Your task to perform on an android device: Set an alarm for 12pm Image 0: 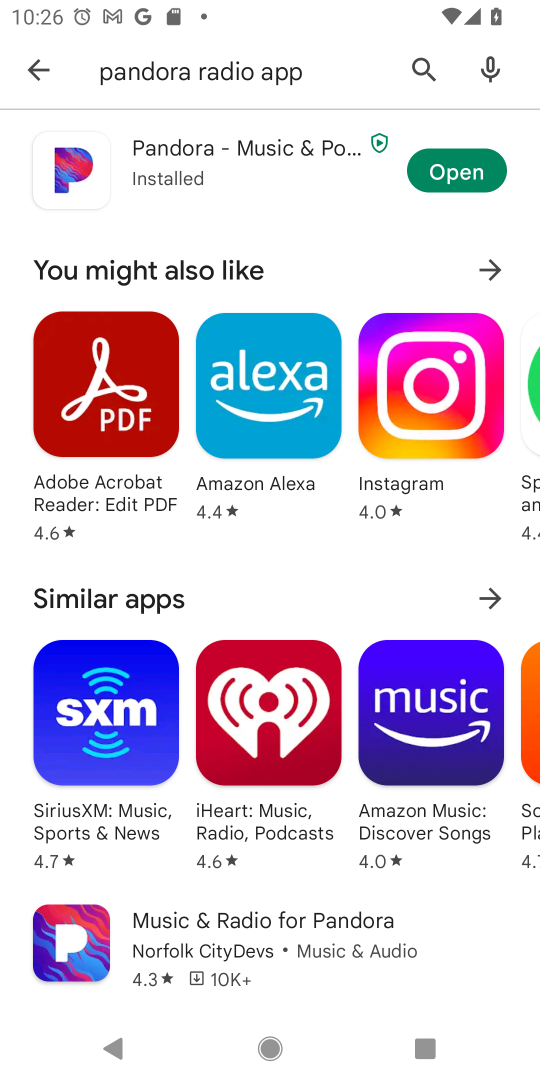
Step 0: click (188, 61)
Your task to perform on an android device: Set an alarm for 12pm Image 1: 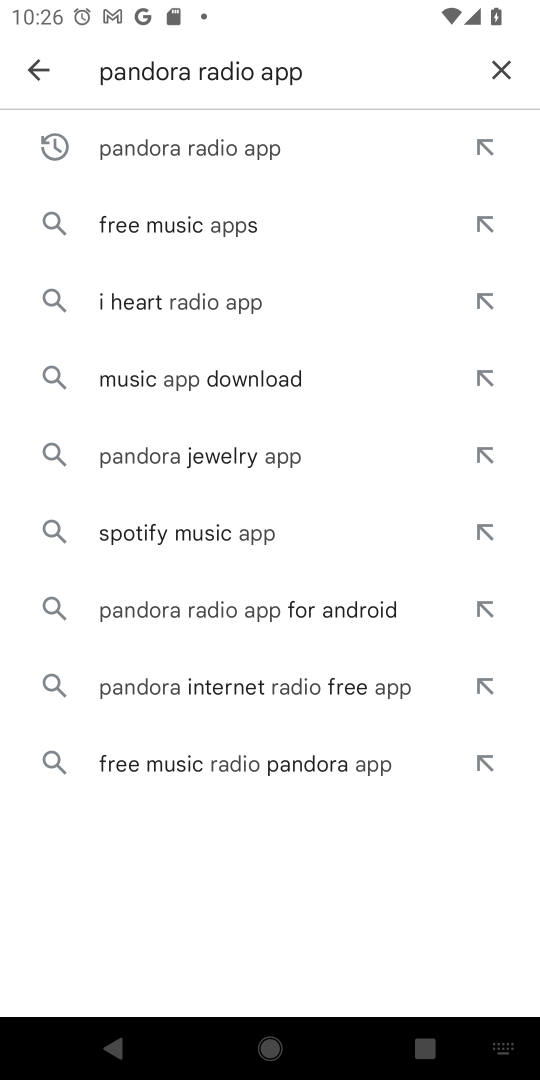
Step 1: click (497, 72)
Your task to perform on an android device: Set an alarm for 12pm Image 2: 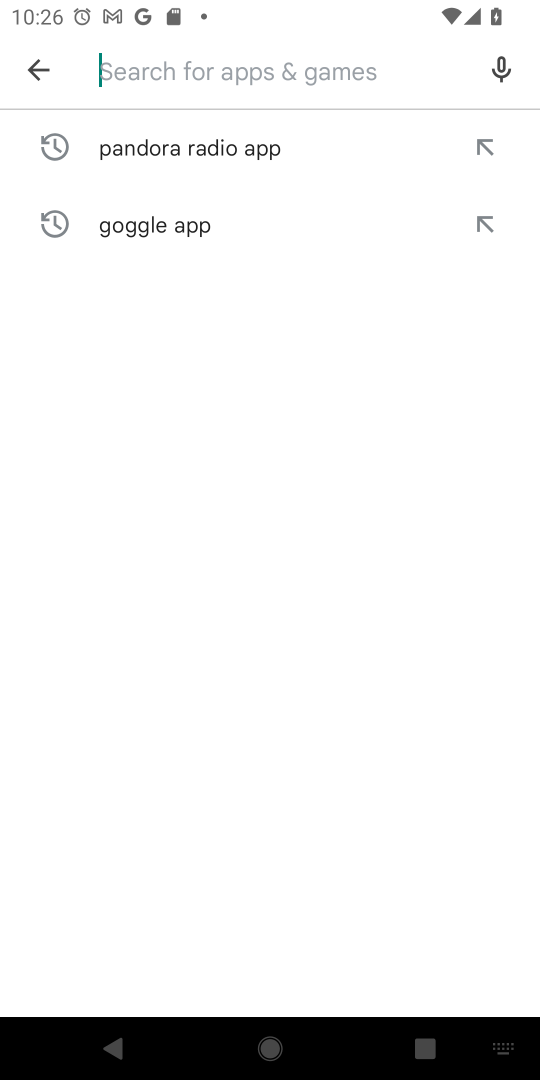
Step 2: press home button
Your task to perform on an android device: Set an alarm for 12pm Image 3: 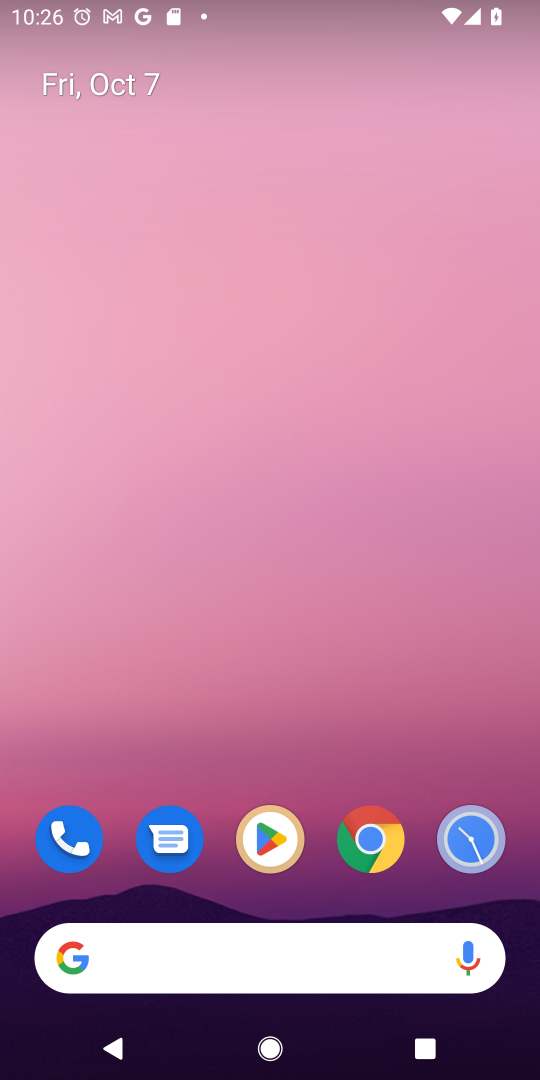
Step 3: click (493, 828)
Your task to perform on an android device: Set an alarm for 12pm Image 4: 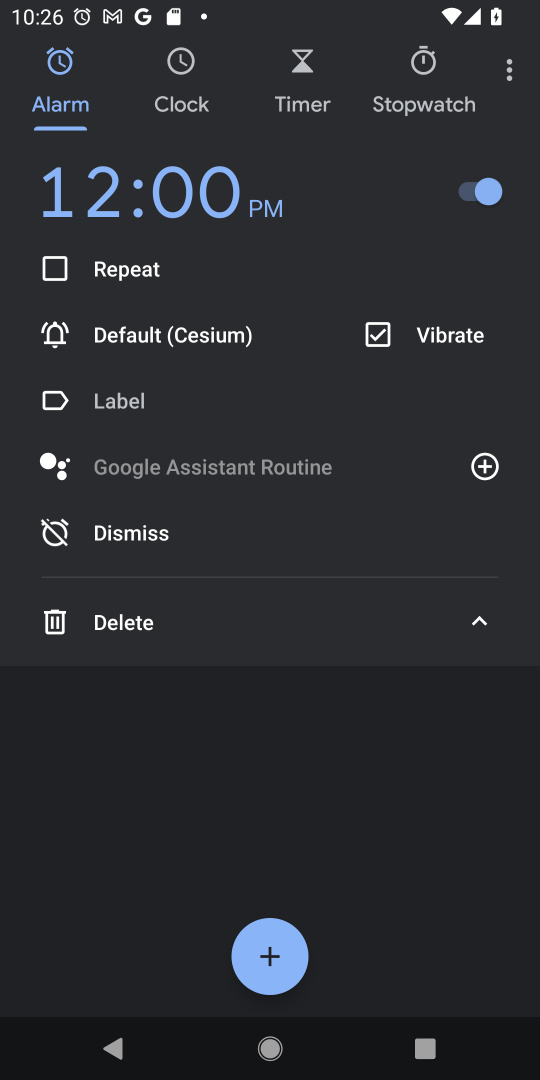
Step 4: click (247, 211)
Your task to perform on an android device: Set an alarm for 12pm Image 5: 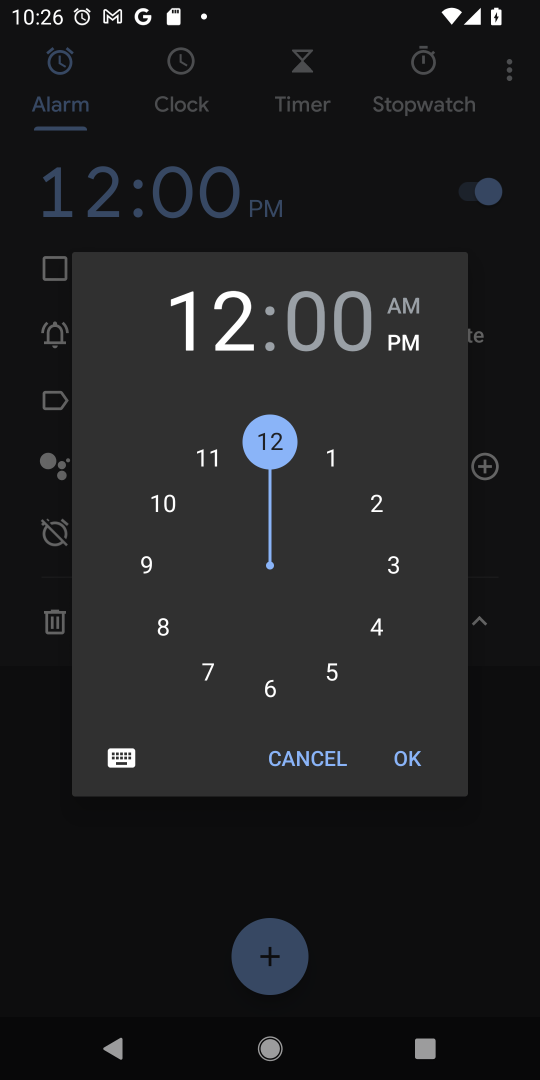
Step 5: click (415, 345)
Your task to perform on an android device: Set an alarm for 12pm Image 6: 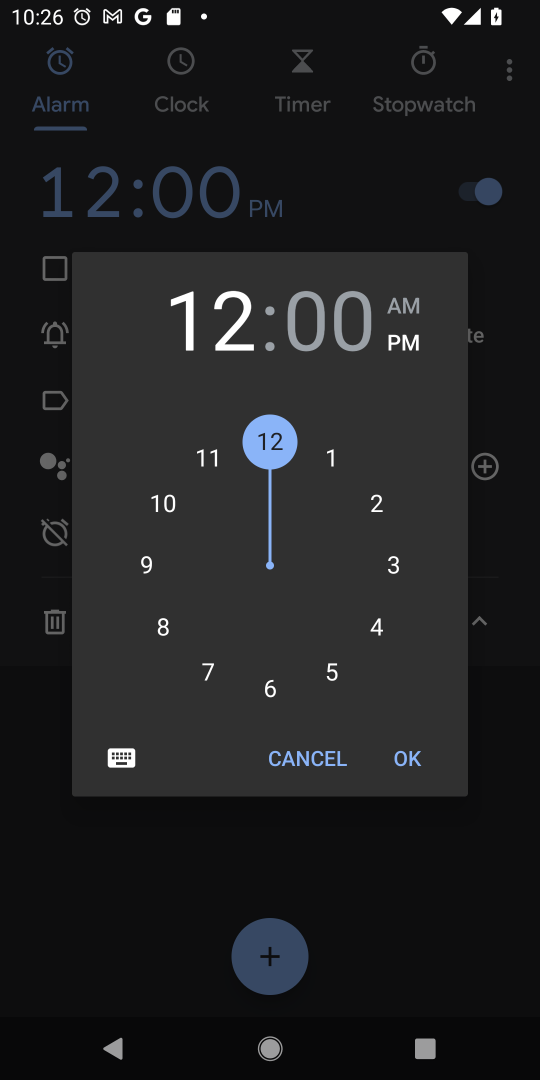
Step 6: click (401, 753)
Your task to perform on an android device: Set an alarm for 12pm Image 7: 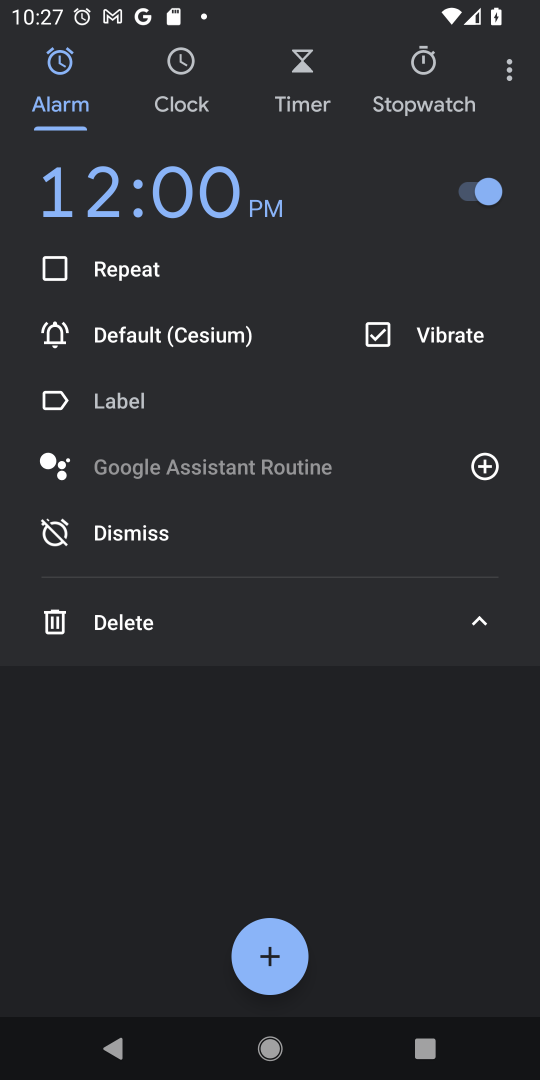
Step 7: task complete